Your task to perform on an android device: turn on javascript in the chrome app Image 0: 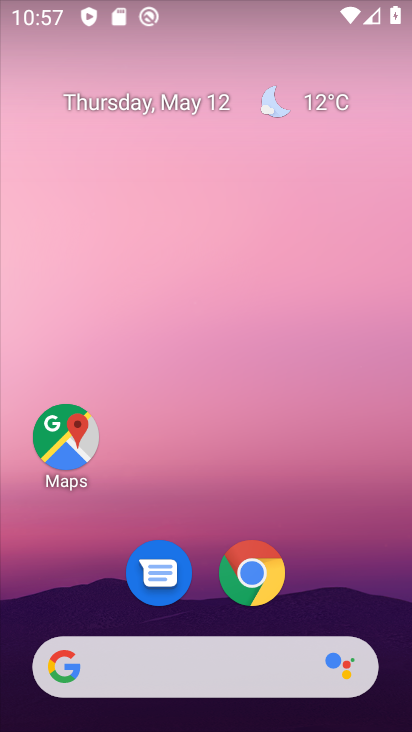
Step 0: press home button
Your task to perform on an android device: turn on javascript in the chrome app Image 1: 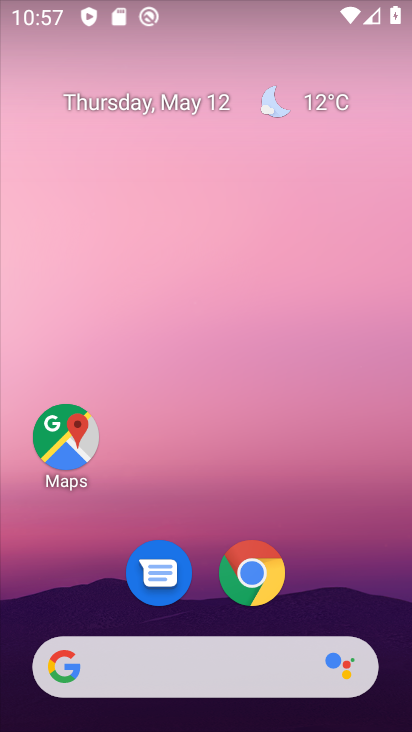
Step 1: press home button
Your task to perform on an android device: turn on javascript in the chrome app Image 2: 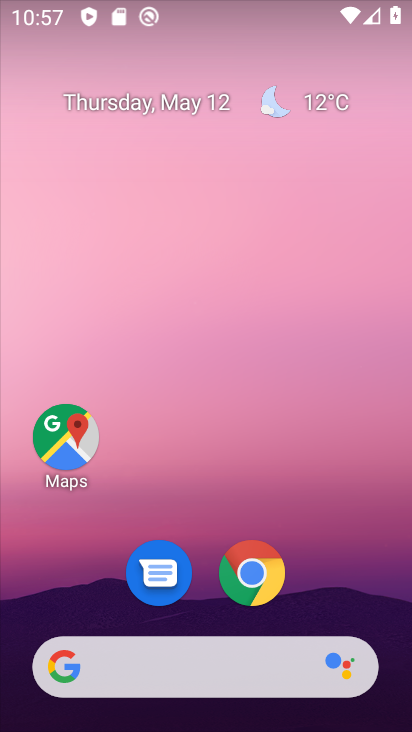
Step 2: drag from (351, 588) to (298, 17)
Your task to perform on an android device: turn on javascript in the chrome app Image 3: 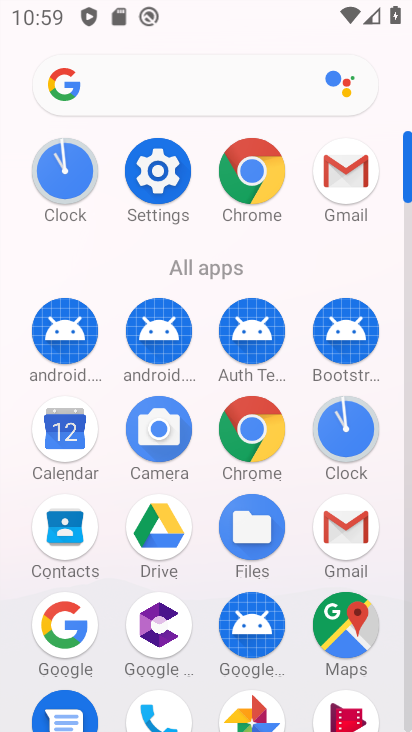
Step 3: click (250, 178)
Your task to perform on an android device: turn on javascript in the chrome app Image 4: 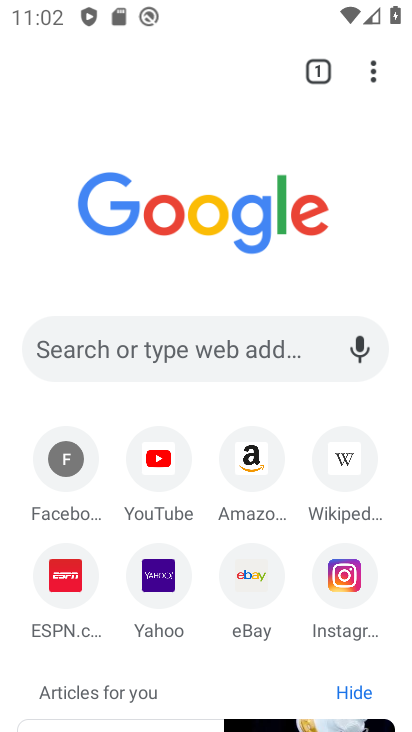
Step 4: drag from (379, 60) to (143, 595)
Your task to perform on an android device: turn on javascript in the chrome app Image 5: 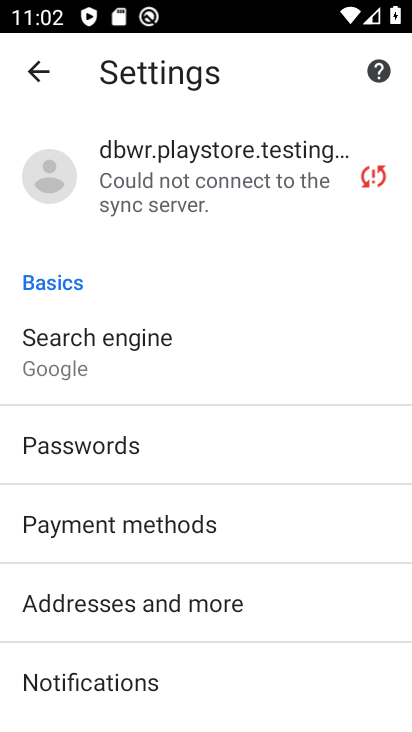
Step 5: drag from (203, 610) to (353, 305)
Your task to perform on an android device: turn on javascript in the chrome app Image 6: 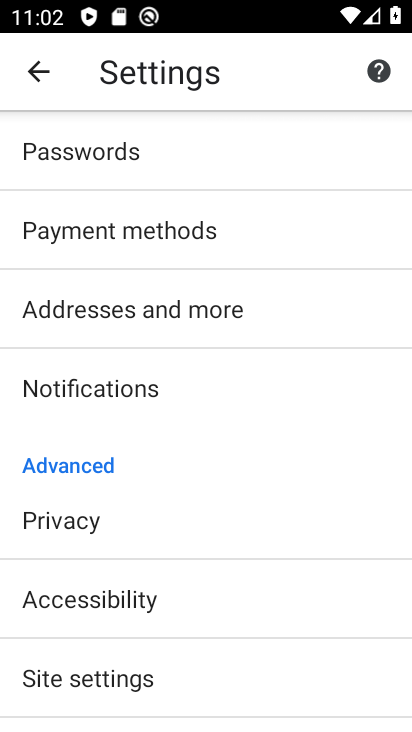
Step 6: drag from (202, 634) to (225, 286)
Your task to perform on an android device: turn on javascript in the chrome app Image 7: 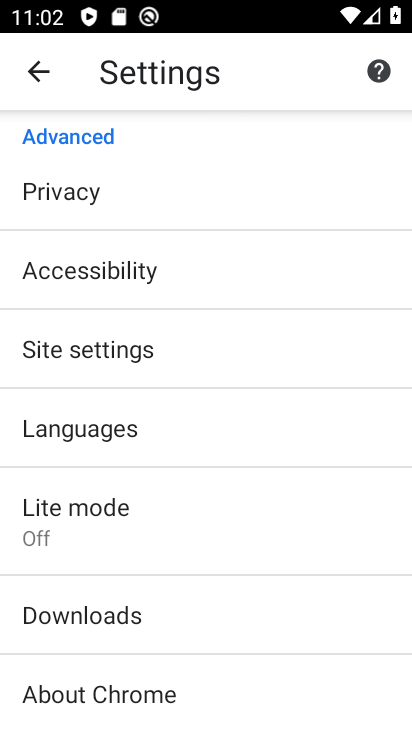
Step 7: drag from (189, 559) to (182, 347)
Your task to perform on an android device: turn on javascript in the chrome app Image 8: 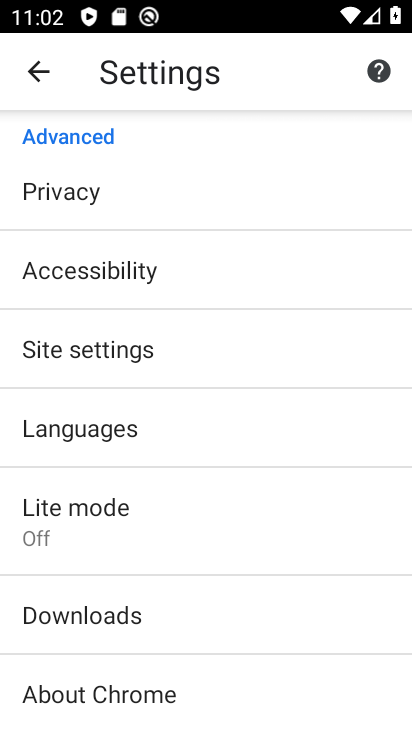
Step 8: click (147, 358)
Your task to perform on an android device: turn on javascript in the chrome app Image 9: 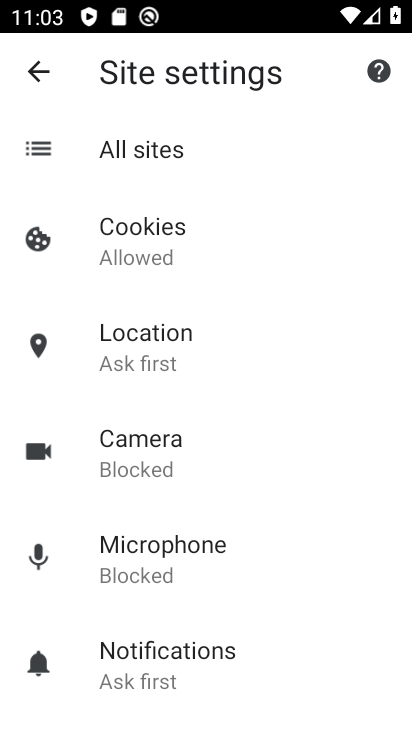
Step 9: drag from (215, 582) to (199, 290)
Your task to perform on an android device: turn on javascript in the chrome app Image 10: 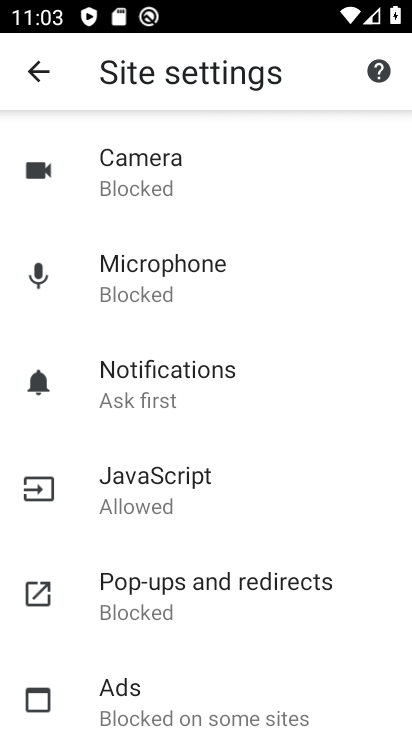
Step 10: click (200, 482)
Your task to perform on an android device: turn on javascript in the chrome app Image 11: 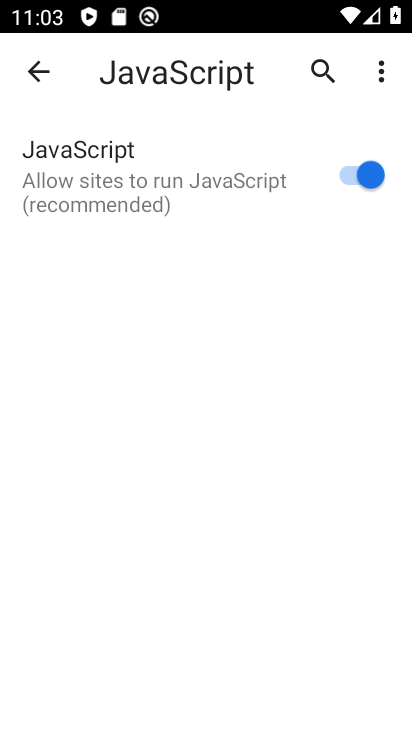
Step 11: task complete